Your task to perform on an android device: Show me productivity apps on the Play Store Image 0: 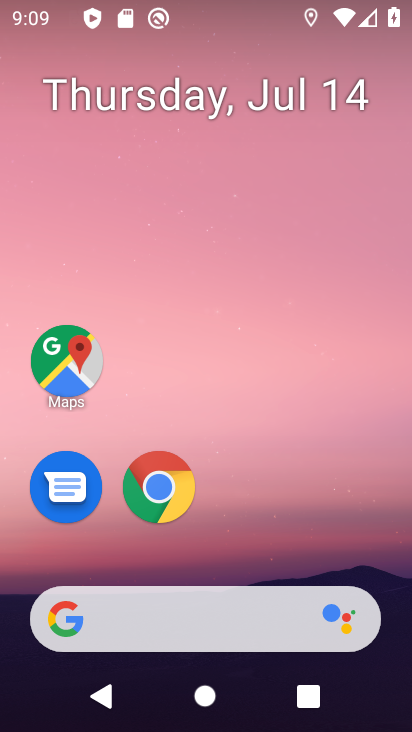
Step 0: drag from (274, 320) to (279, 0)
Your task to perform on an android device: Show me productivity apps on the Play Store Image 1: 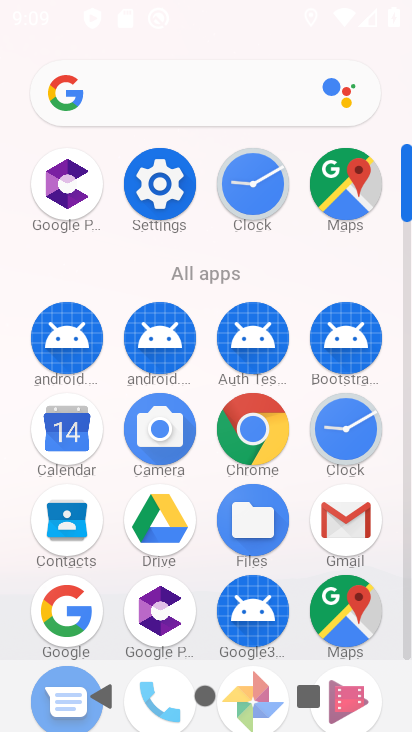
Step 1: drag from (178, 613) to (215, 119)
Your task to perform on an android device: Show me productivity apps on the Play Store Image 2: 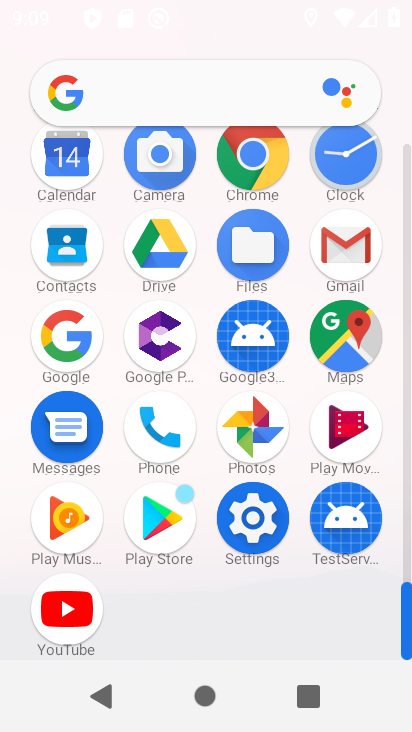
Step 2: click (161, 513)
Your task to perform on an android device: Show me productivity apps on the Play Store Image 3: 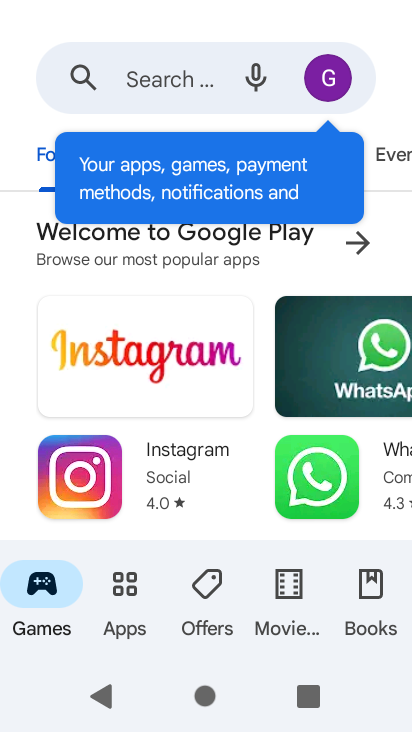
Step 3: click (117, 585)
Your task to perform on an android device: Show me productivity apps on the Play Store Image 4: 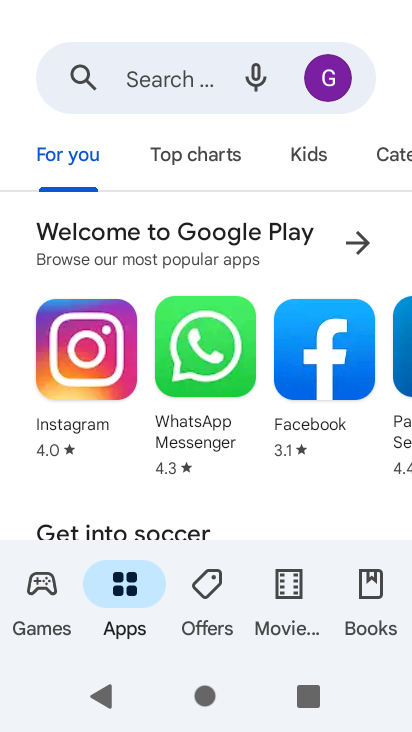
Step 4: drag from (243, 516) to (246, 261)
Your task to perform on an android device: Show me productivity apps on the Play Store Image 5: 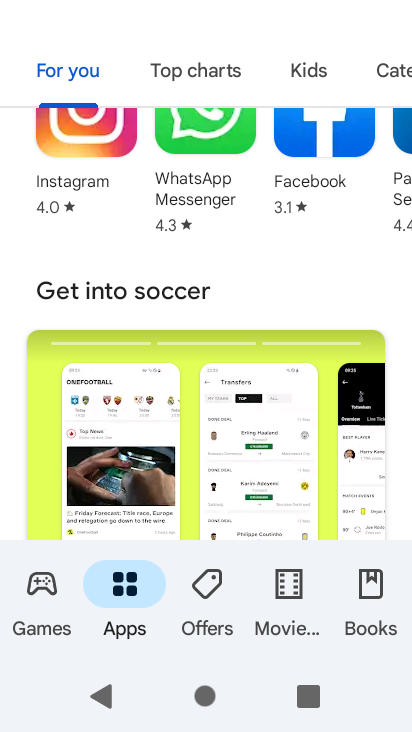
Step 5: drag from (202, 469) to (256, 7)
Your task to perform on an android device: Show me productivity apps on the Play Store Image 6: 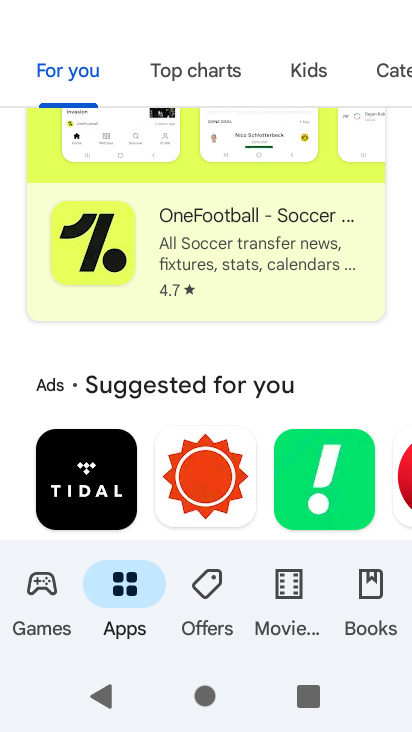
Step 6: drag from (203, 500) to (228, 102)
Your task to perform on an android device: Show me productivity apps on the Play Store Image 7: 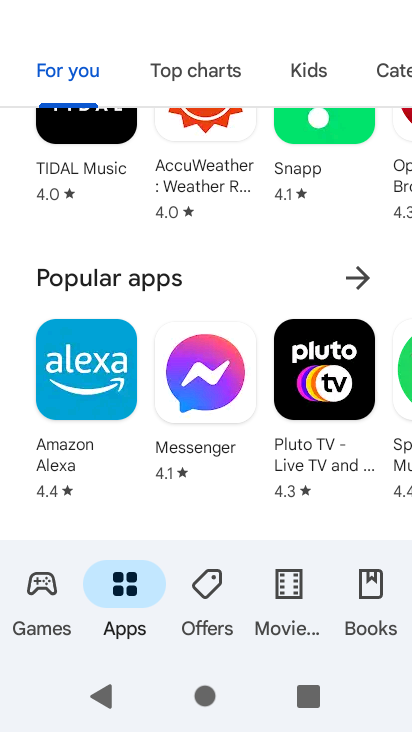
Step 7: drag from (228, 455) to (279, 21)
Your task to perform on an android device: Show me productivity apps on the Play Store Image 8: 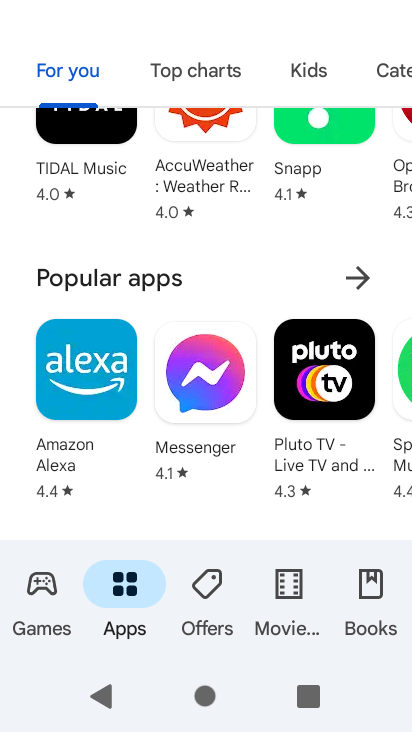
Step 8: drag from (194, 483) to (227, 75)
Your task to perform on an android device: Show me productivity apps on the Play Store Image 9: 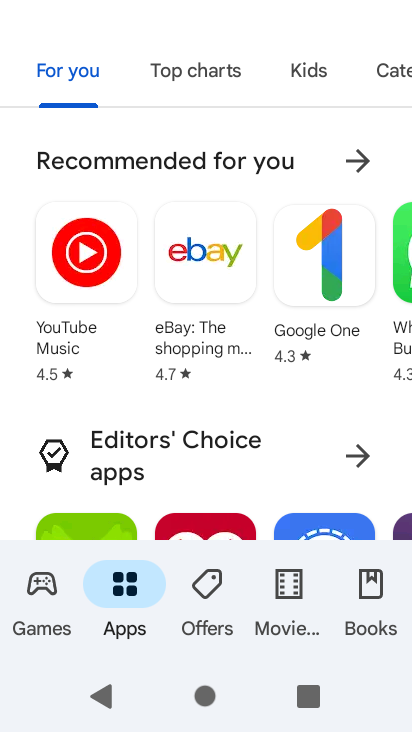
Step 9: drag from (220, 440) to (286, 1)
Your task to perform on an android device: Show me productivity apps on the Play Store Image 10: 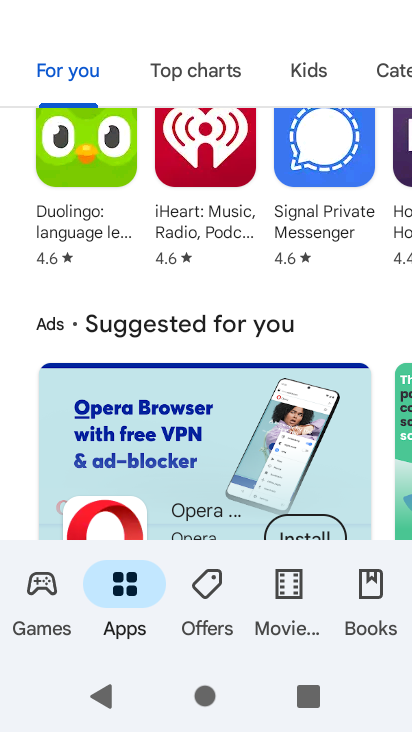
Step 10: drag from (211, 470) to (275, 17)
Your task to perform on an android device: Show me productivity apps on the Play Store Image 11: 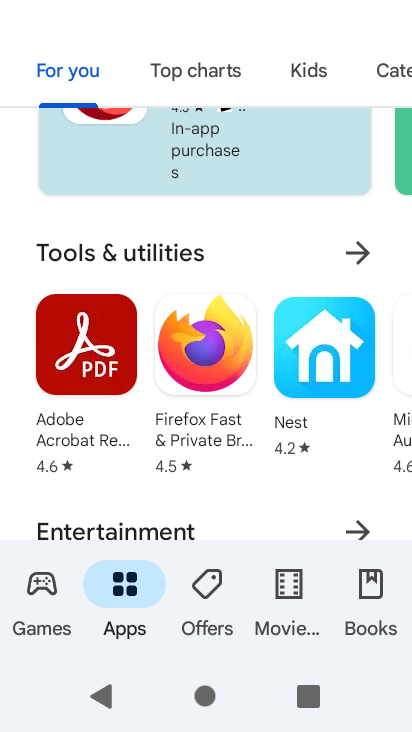
Step 11: drag from (213, 471) to (284, 28)
Your task to perform on an android device: Show me productivity apps on the Play Store Image 12: 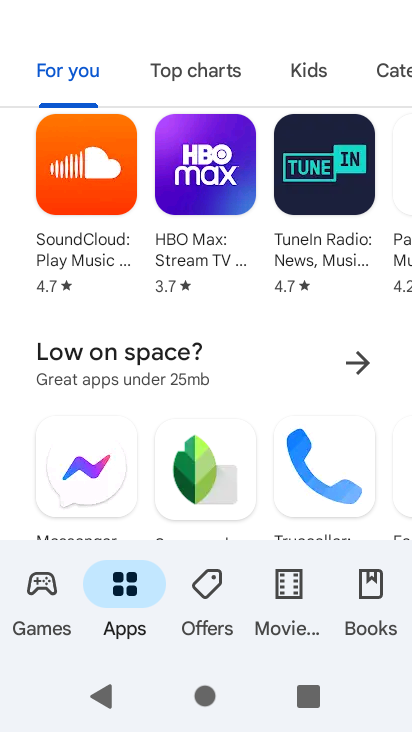
Step 12: drag from (216, 466) to (276, 22)
Your task to perform on an android device: Show me productivity apps on the Play Store Image 13: 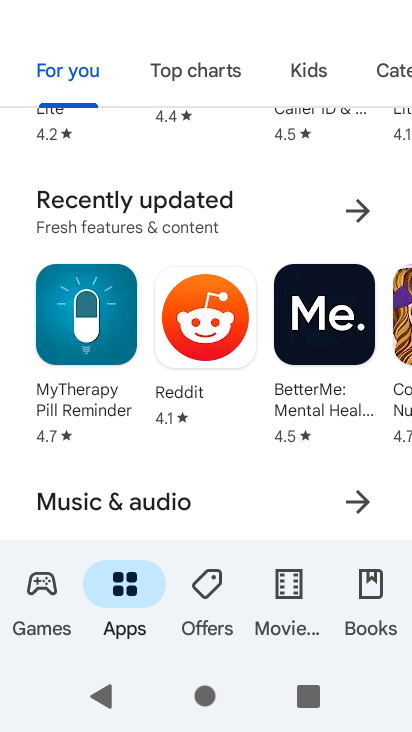
Step 13: drag from (229, 487) to (248, 7)
Your task to perform on an android device: Show me productivity apps on the Play Store Image 14: 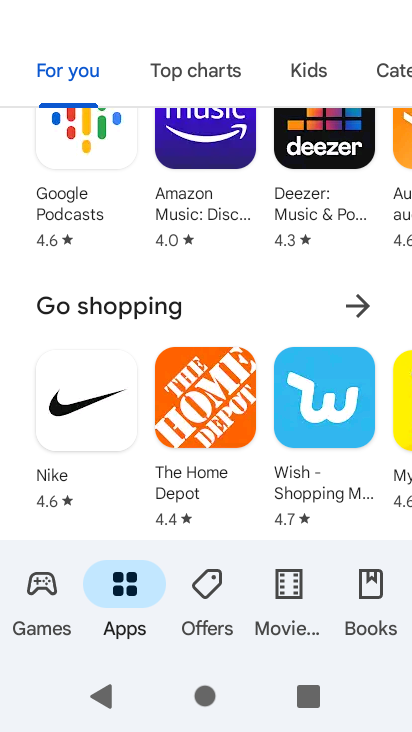
Step 14: drag from (254, 429) to (301, 0)
Your task to perform on an android device: Show me productivity apps on the Play Store Image 15: 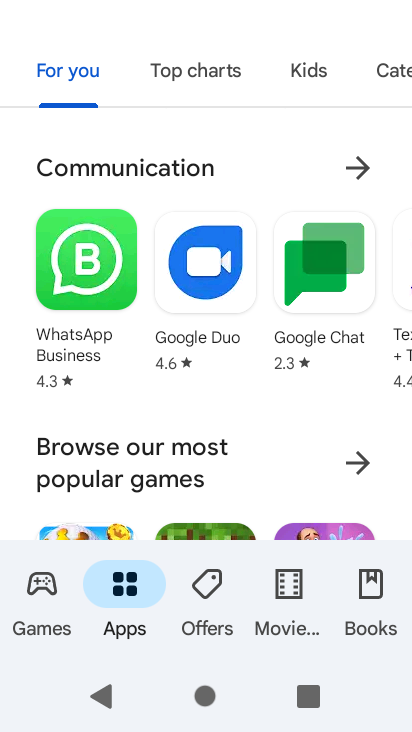
Step 15: drag from (280, 503) to (364, 2)
Your task to perform on an android device: Show me productivity apps on the Play Store Image 16: 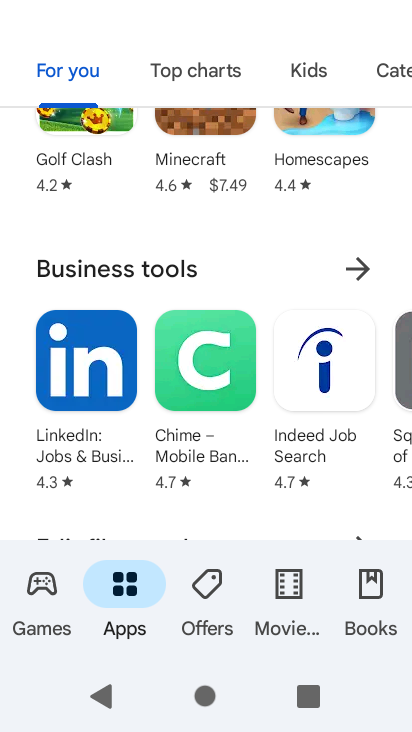
Step 16: drag from (309, 425) to (349, 17)
Your task to perform on an android device: Show me productivity apps on the Play Store Image 17: 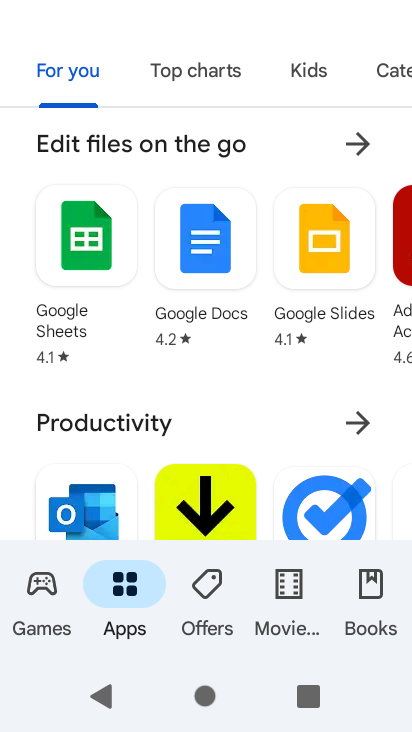
Step 17: click (362, 419)
Your task to perform on an android device: Show me productivity apps on the Play Store Image 18: 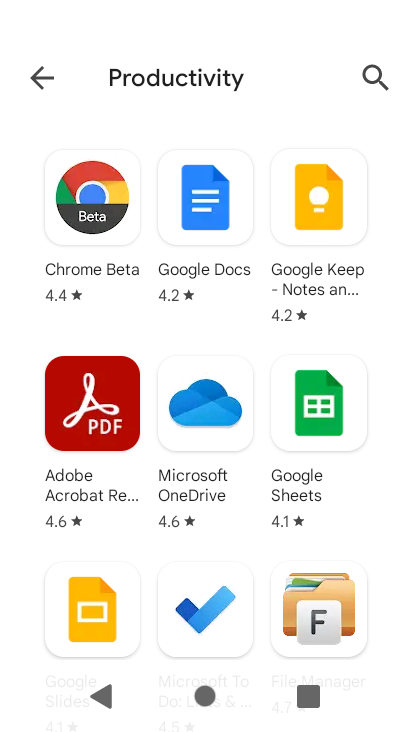
Step 18: task complete